Your task to perform on an android device: add a contact Image 0: 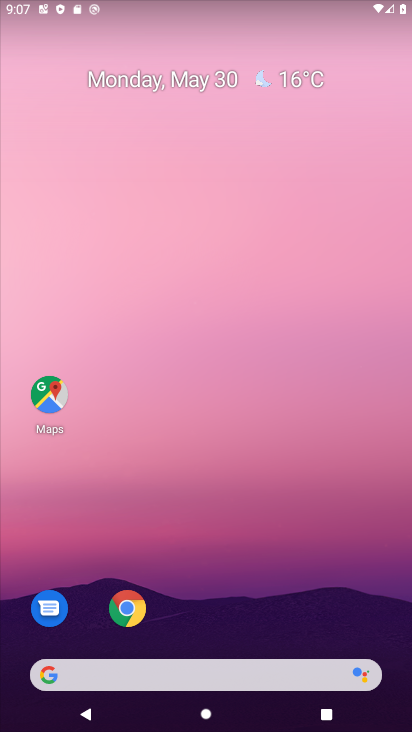
Step 0: drag from (385, 664) to (351, 226)
Your task to perform on an android device: add a contact Image 1: 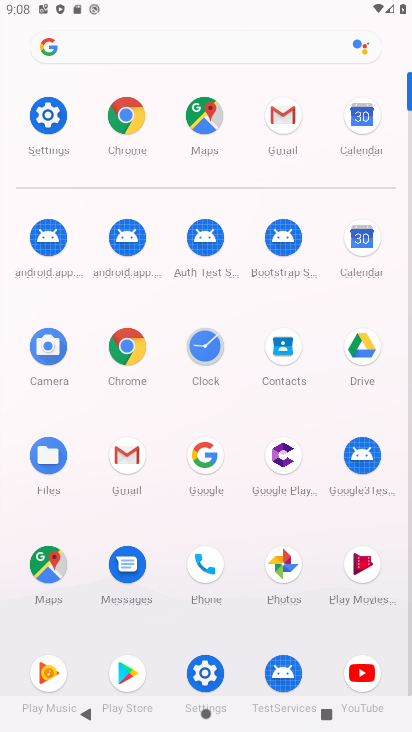
Step 1: click (286, 340)
Your task to perform on an android device: add a contact Image 2: 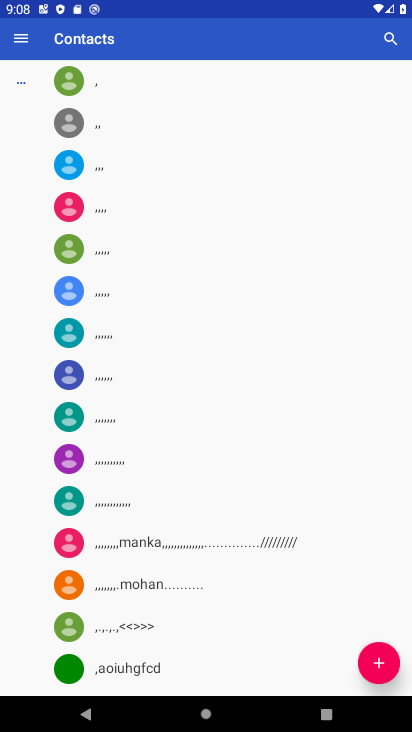
Step 2: click (372, 658)
Your task to perform on an android device: add a contact Image 3: 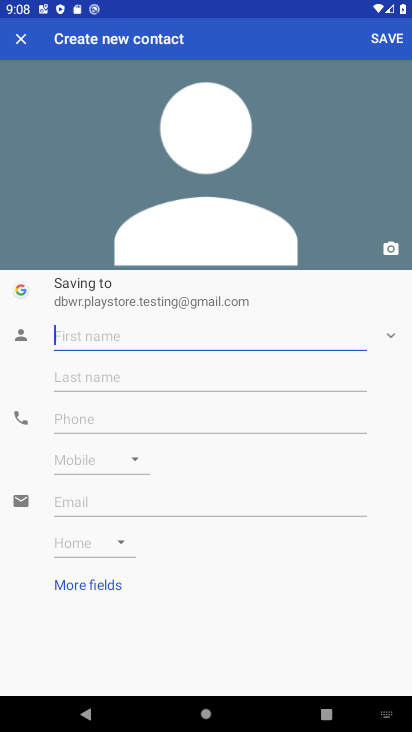
Step 3: type "fghfhjjh"
Your task to perform on an android device: add a contact Image 4: 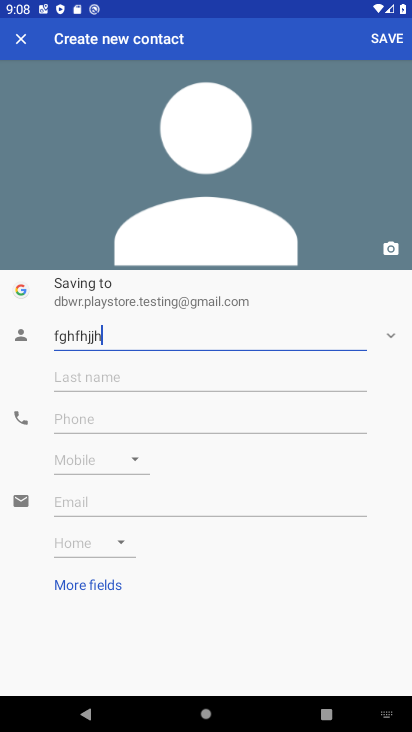
Step 4: click (158, 379)
Your task to perform on an android device: add a contact Image 5: 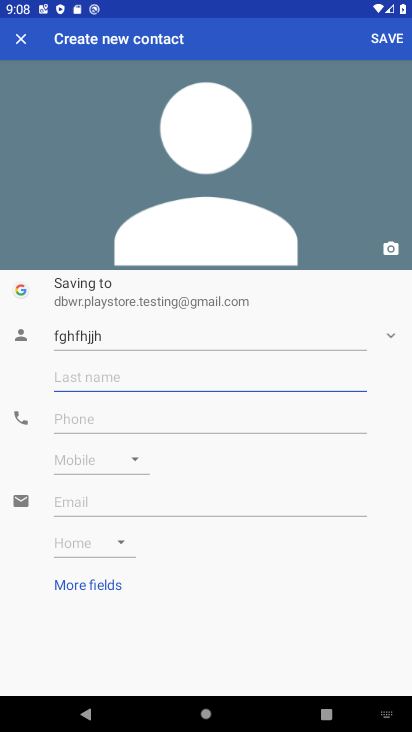
Step 5: type "gcrdhh"
Your task to perform on an android device: add a contact Image 6: 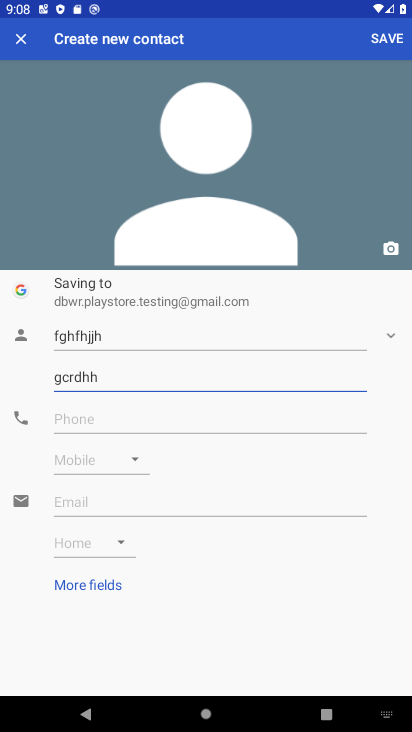
Step 6: click (119, 425)
Your task to perform on an android device: add a contact Image 7: 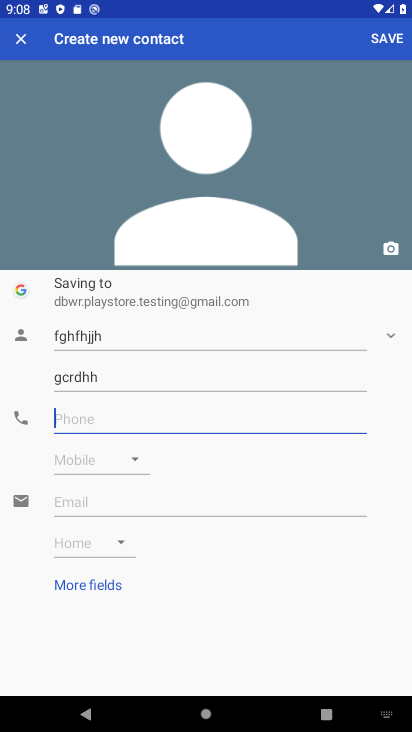
Step 7: type "5653334343"
Your task to perform on an android device: add a contact Image 8: 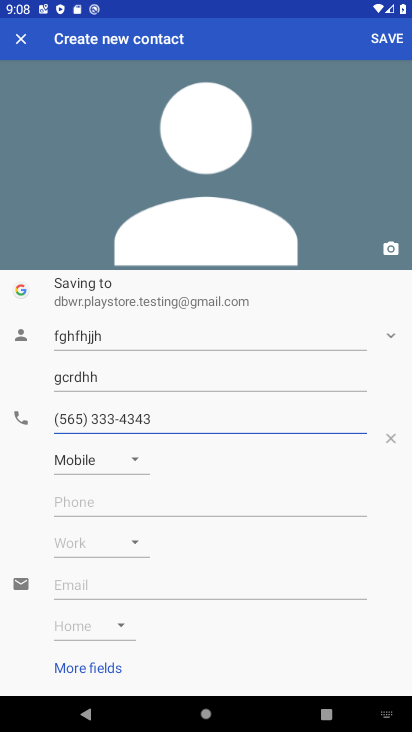
Step 8: click (396, 35)
Your task to perform on an android device: add a contact Image 9: 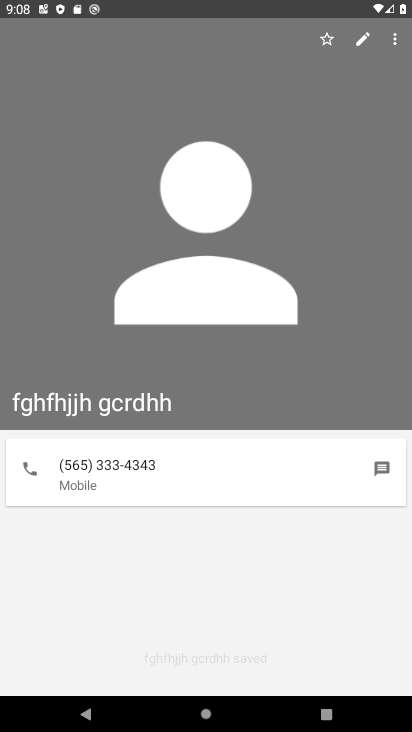
Step 9: task complete